Your task to perform on an android device: Open maps Image 0: 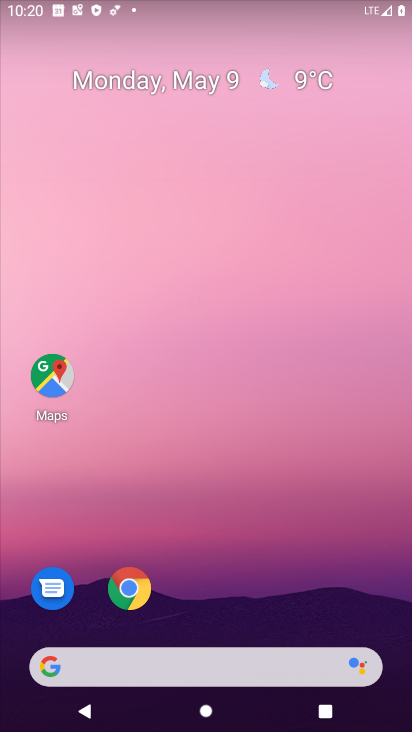
Step 0: press home button
Your task to perform on an android device: Open maps Image 1: 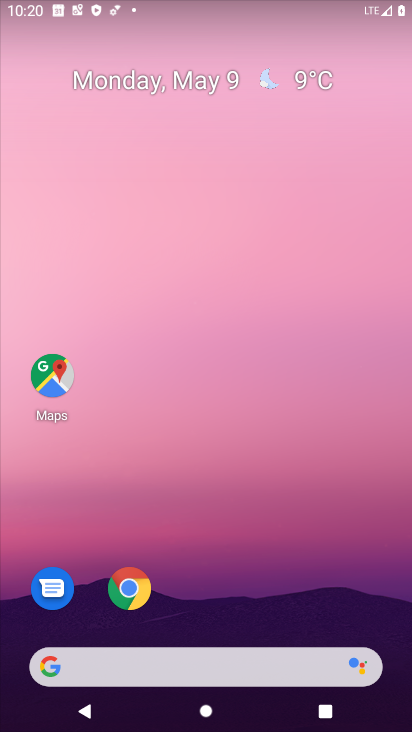
Step 1: click (64, 374)
Your task to perform on an android device: Open maps Image 2: 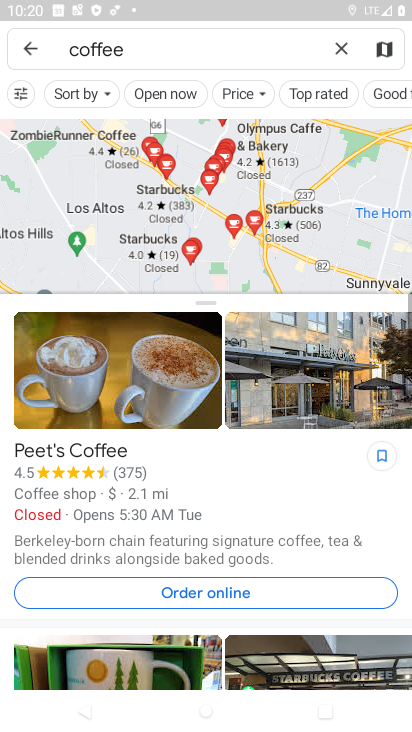
Step 2: click (26, 53)
Your task to perform on an android device: Open maps Image 3: 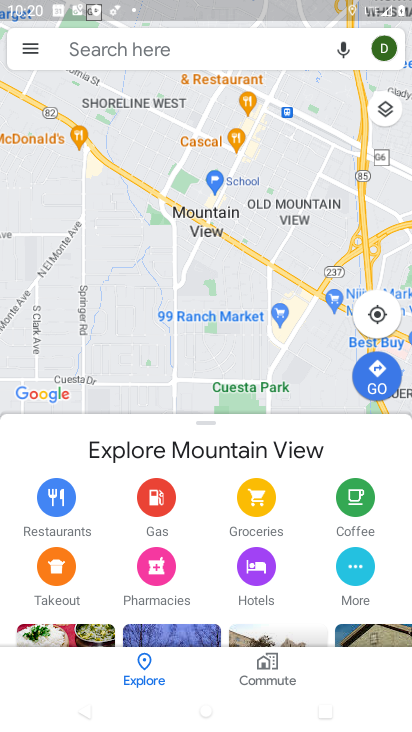
Step 3: task complete